Your task to perform on an android device: set an alarm Image 0: 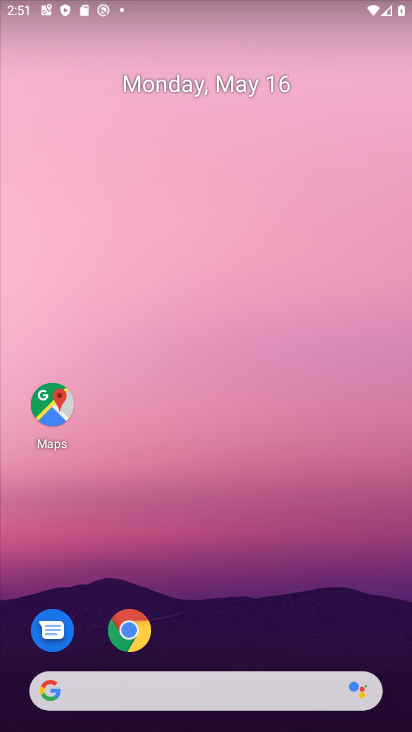
Step 0: press home button
Your task to perform on an android device: set an alarm Image 1: 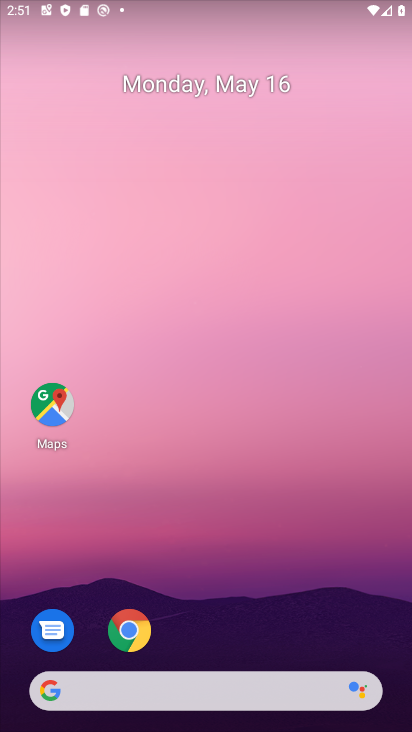
Step 1: drag from (200, 663) to (222, 32)
Your task to perform on an android device: set an alarm Image 2: 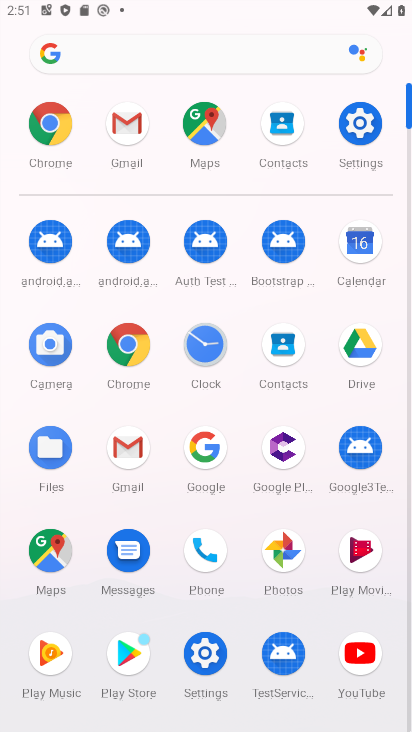
Step 2: click (205, 341)
Your task to perform on an android device: set an alarm Image 3: 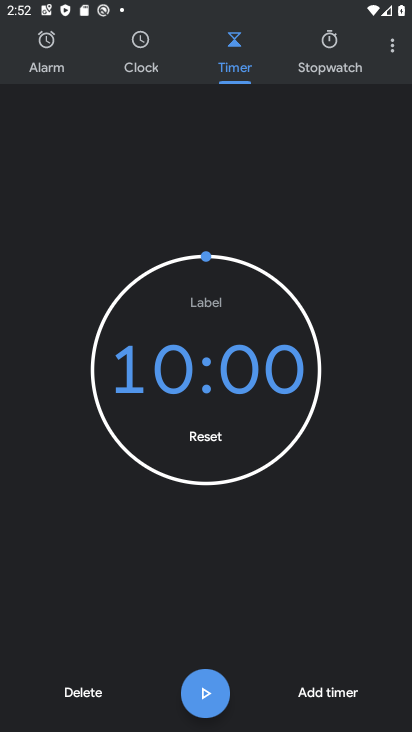
Step 3: click (70, 691)
Your task to perform on an android device: set an alarm Image 4: 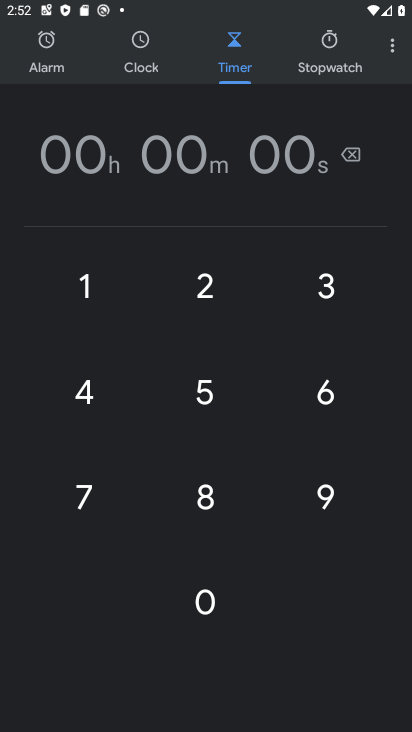
Step 4: click (42, 58)
Your task to perform on an android device: set an alarm Image 5: 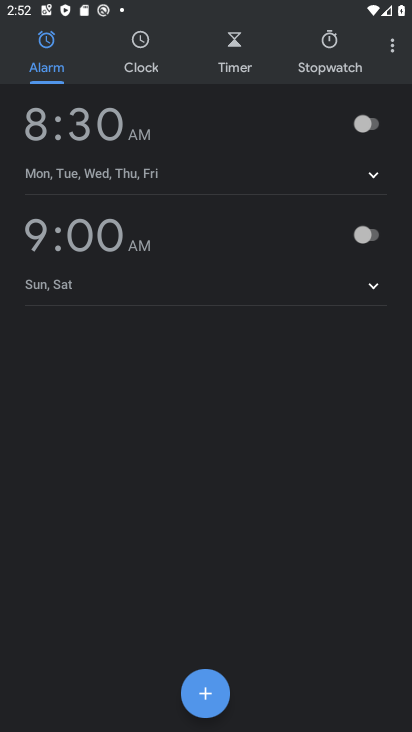
Step 5: click (372, 120)
Your task to perform on an android device: set an alarm Image 6: 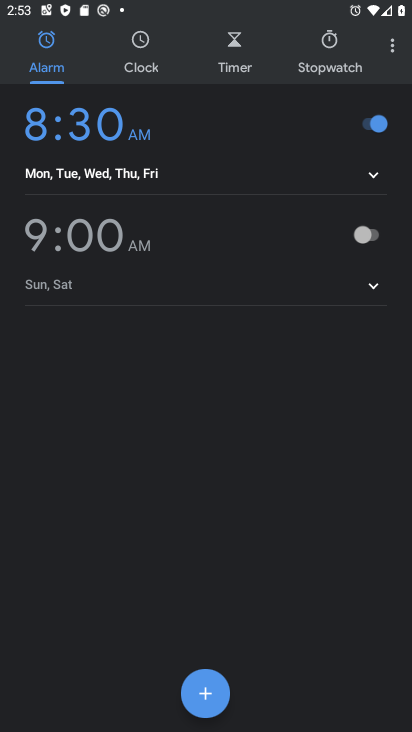
Step 6: task complete